Your task to perform on an android device: turn notification dots off Image 0: 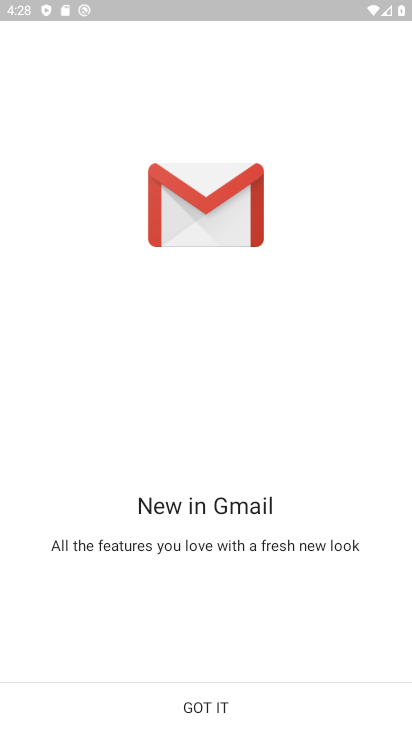
Step 0: press home button
Your task to perform on an android device: turn notification dots off Image 1: 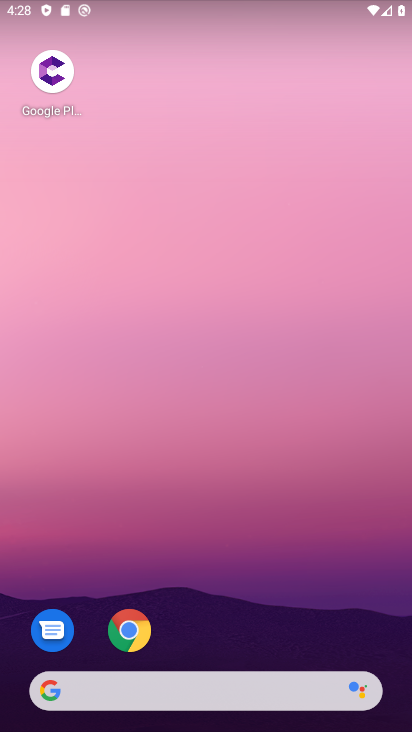
Step 1: drag from (268, 331) to (270, 63)
Your task to perform on an android device: turn notification dots off Image 2: 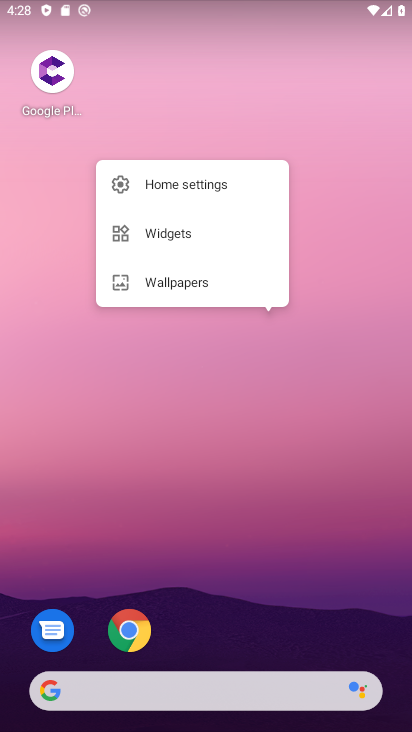
Step 2: drag from (234, 517) to (268, 97)
Your task to perform on an android device: turn notification dots off Image 3: 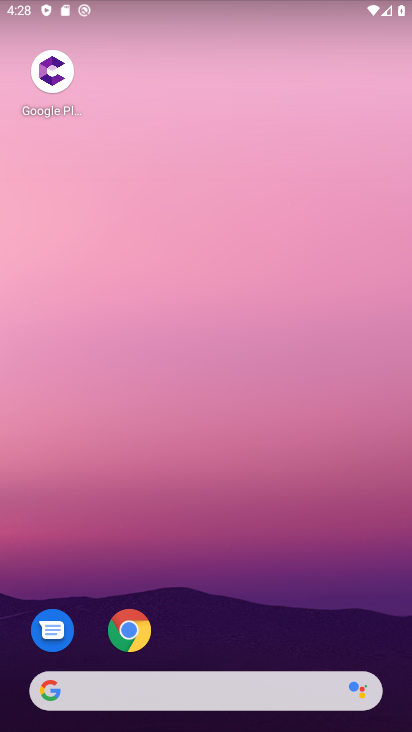
Step 3: drag from (280, 578) to (312, 61)
Your task to perform on an android device: turn notification dots off Image 4: 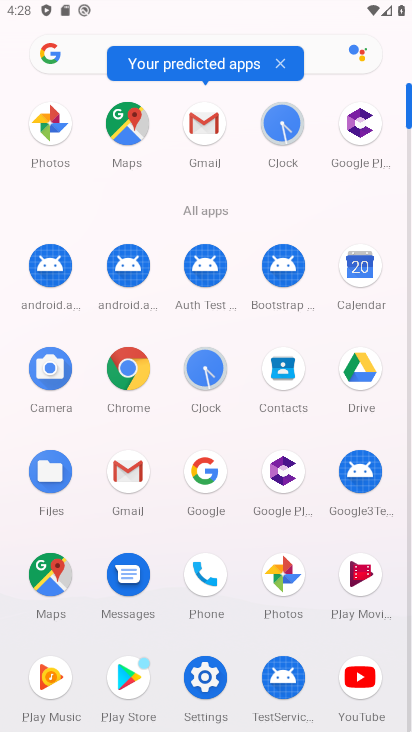
Step 4: click (205, 669)
Your task to perform on an android device: turn notification dots off Image 5: 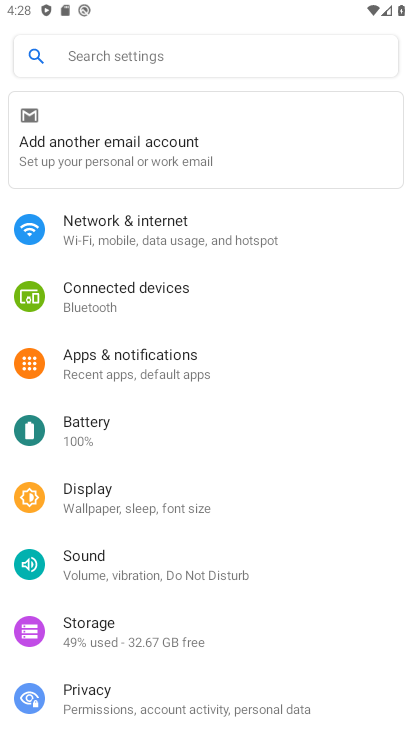
Step 5: click (179, 361)
Your task to perform on an android device: turn notification dots off Image 6: 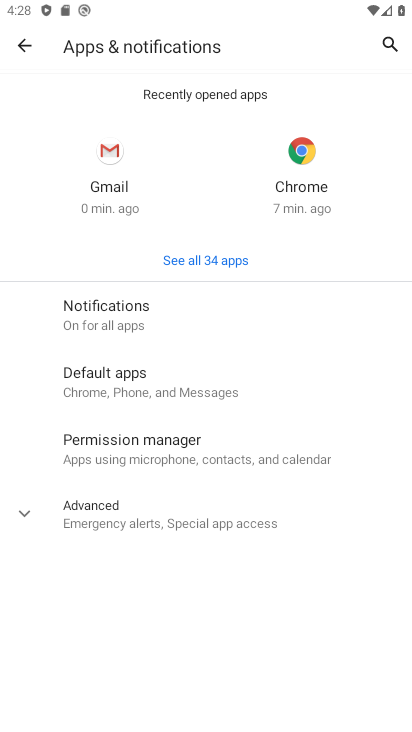
Step 6: click (174, 328)
Your task to perform on an android device: turn notification dots off Image 7: 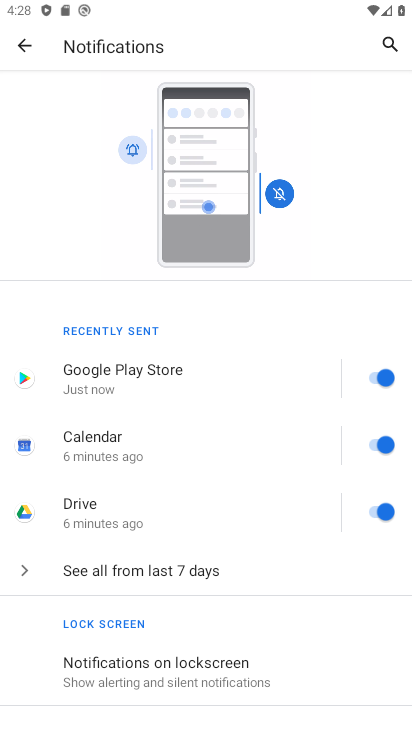
Step 7: drag from (210, 476) to (261, 70)
Your task to perform on an android device: turn notification dots off Image 8: 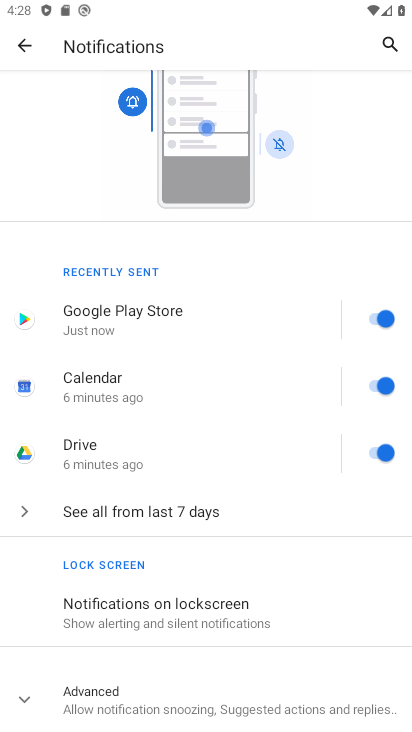
Step 8: click (23, 691)
Your task to perform on an android device: turn notification dots off Image 9: 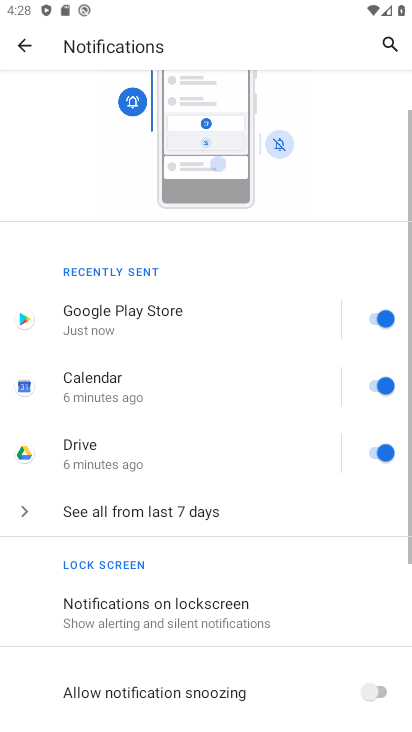
Step 9: drag from (225, 523) to (258, 110)
Your task to perform on an android device: turn notification dots off Image 10: 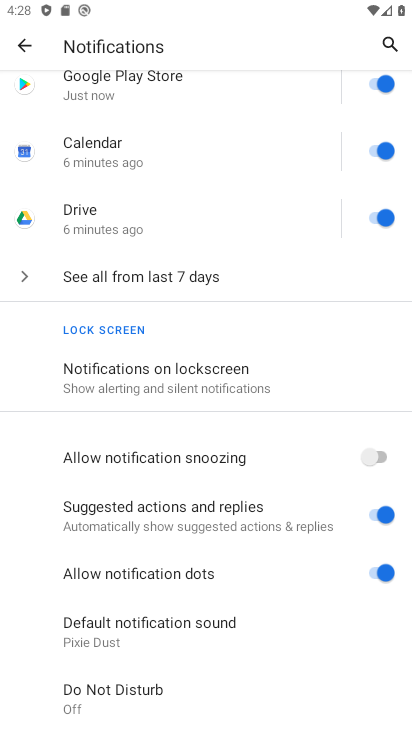
Step 10: click (370, 577)
Your task to perform on an android device: turn notification dots off Image 11: 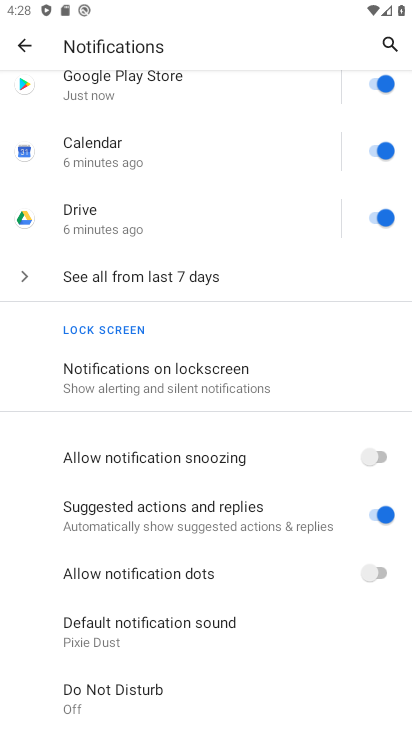
Step 11: task complete